Your task to perform on an android device: Search for seafood restaurants on Google Maps Image 0: 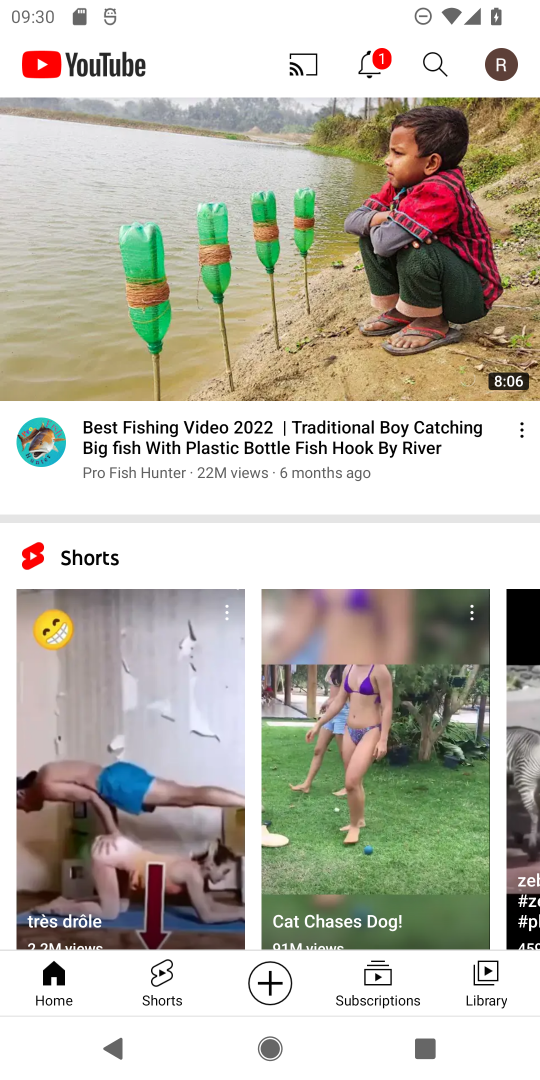
Step 0: press home button
Your task to perform on an android device: Search for seafood restaurants on Google Maps Image 1: 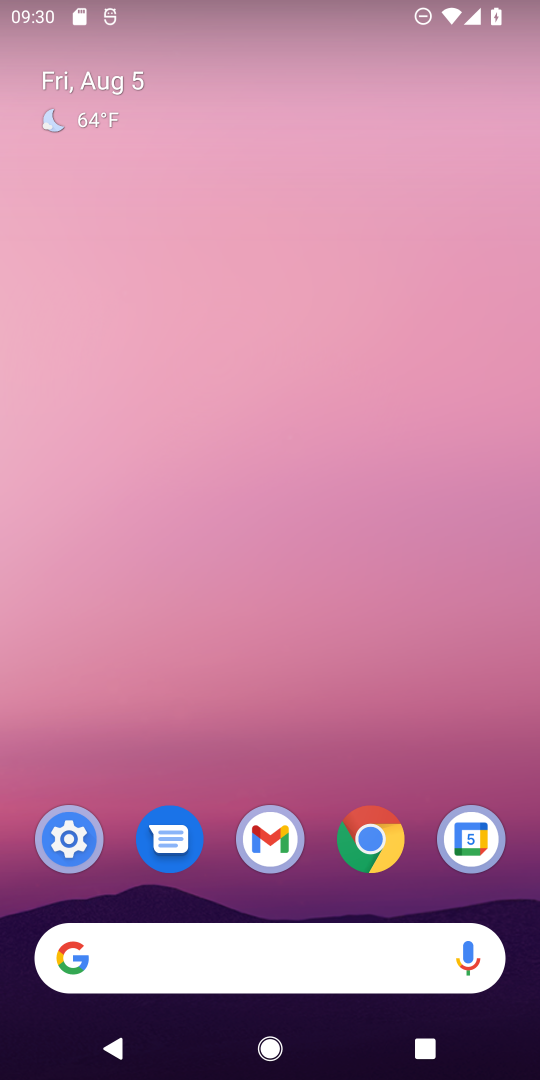
Step 1: drag from (325, 874) to (353, 351)
Your task to perform on an android device: Search for seafood restaurants on Google Maps Image 2: 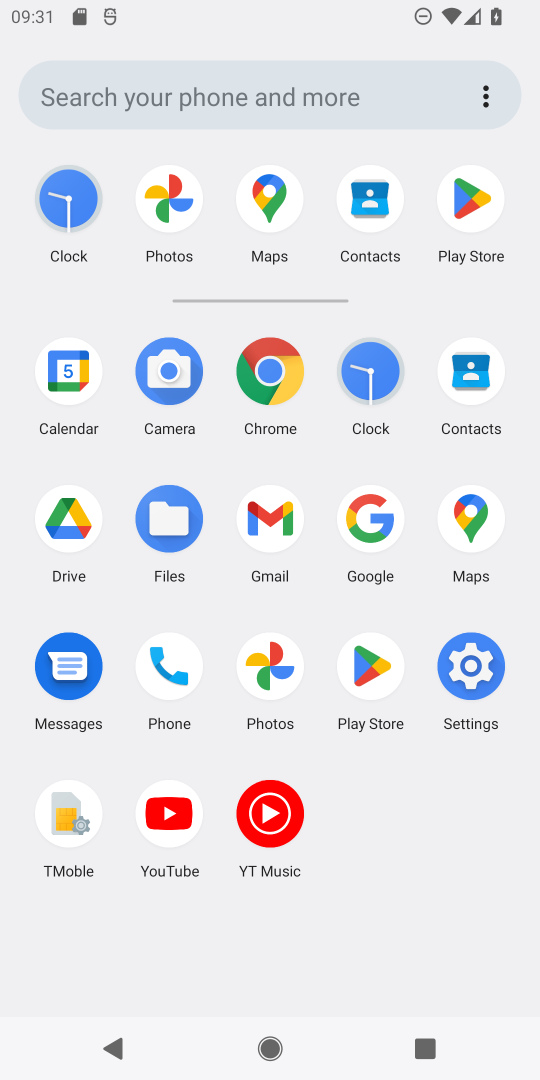
Step 2: click (481, 518)
Your task to perform on an android device: Search for seafood restaurants on Google Maps Image 3: 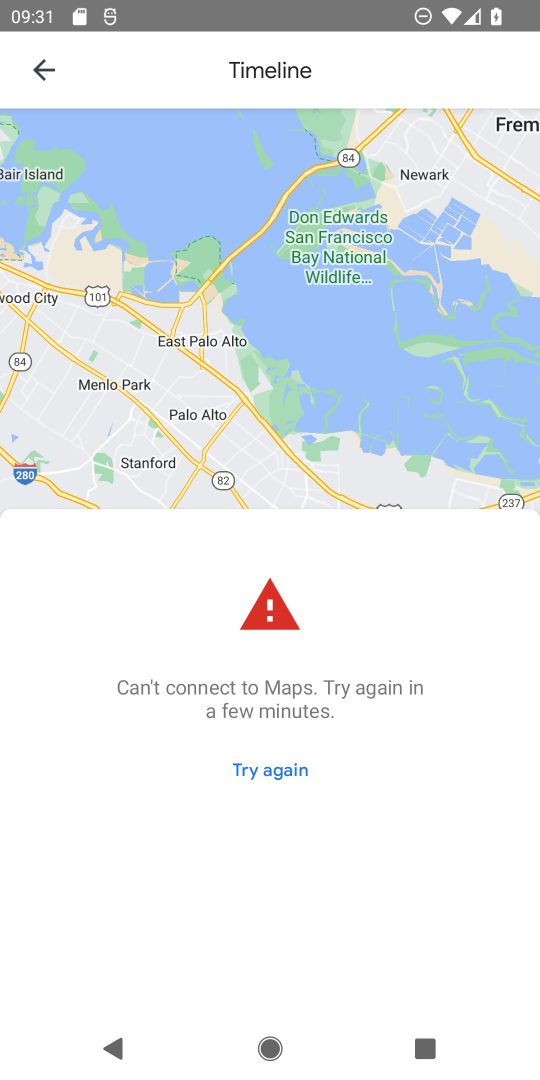
Step 3: click (36, 62)
Your task to perform on an android device: Search for seafood restaurants on Google Maps Image 4: 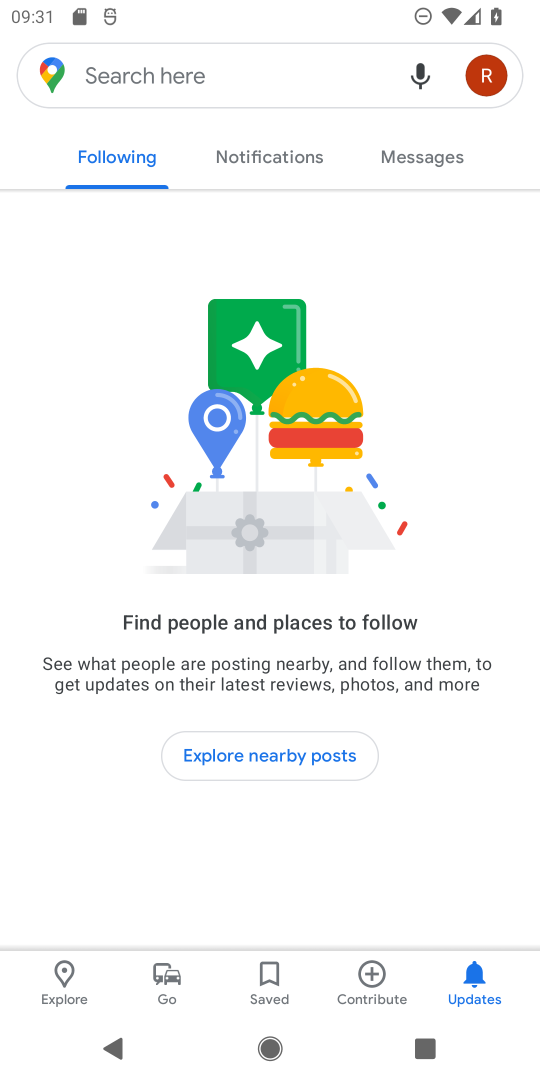
Step 4: click (60, 987)
Your task to perform on an android device: Search for seafood restaurants on Google Maps Image 5: 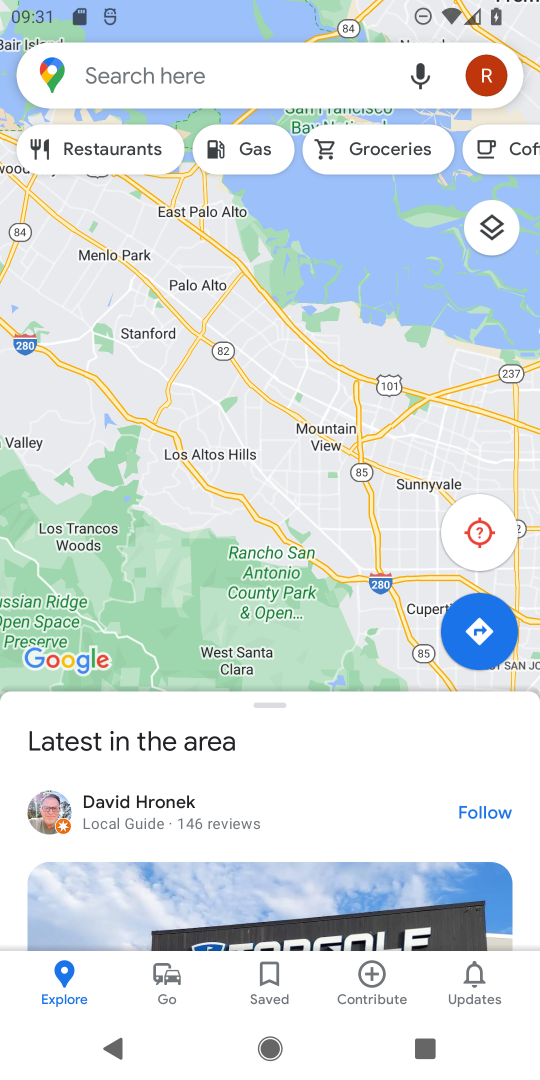
Step 5: click (269, 70)
Your task to perform on an android device: Search for seafood restaurants on Google Maps Image 6: 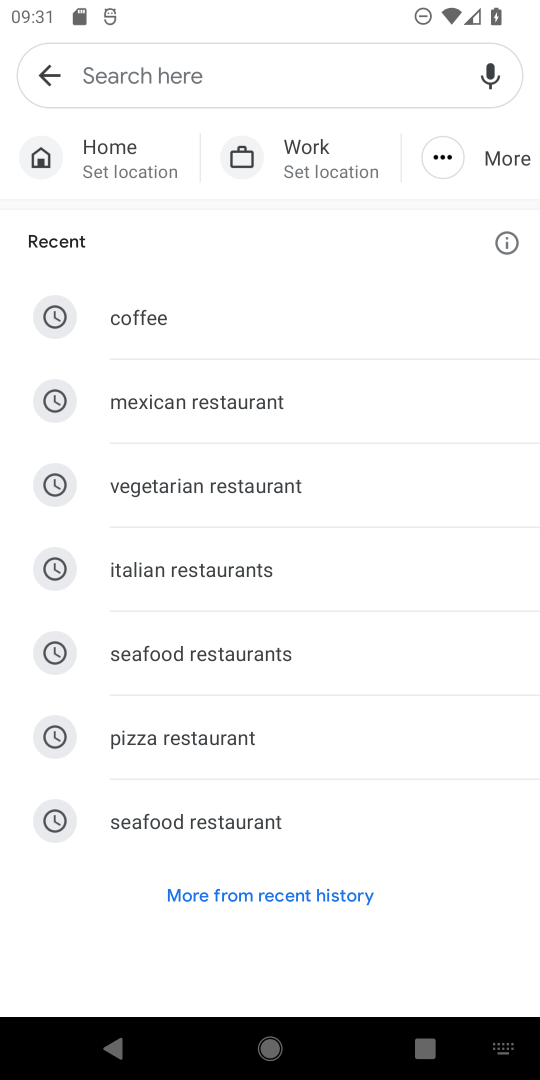
Step 6: type "seafood restaurants"
Your task to perform on an android device: Search for seafood restaurants on Google Maps Image 7: 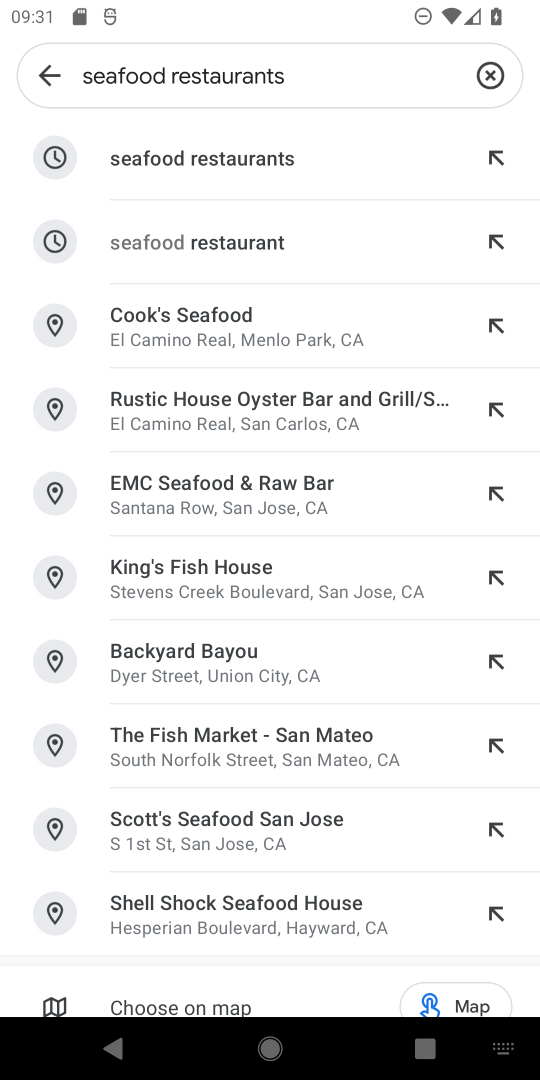
Step 7: click (227, 159)
Your task to perform on an android device: Search for seafood restaurants on Google Maps Image 8: 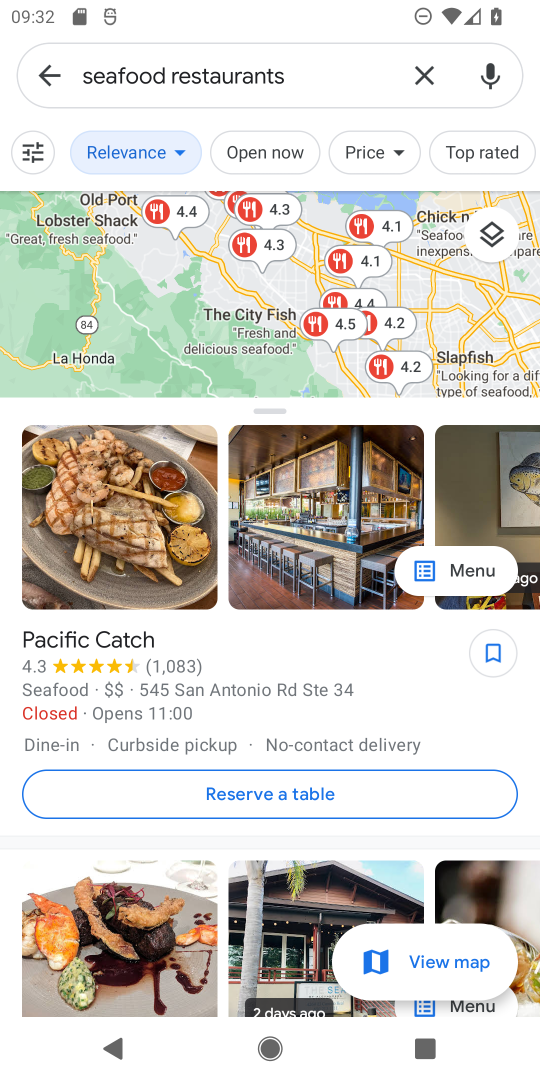
Step 8: task complete